Your task to perform on an android device: snooze an email in the gmail app Image 0: 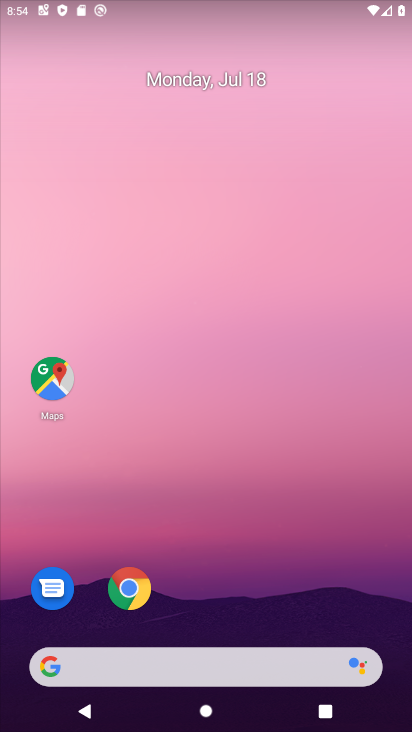
Step 0: drag from (262, 580) to (261, 151)
Your task to perform on an android device: snooze an email in the gmail app Image 1: 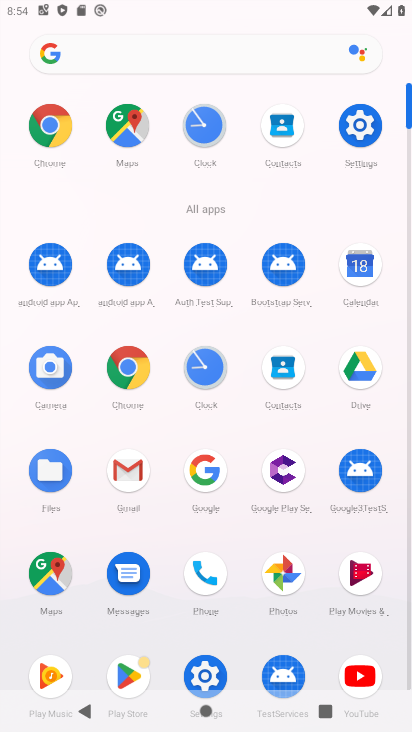
Step 1: click (123, 475)
Your task to perform on an android device: snooze an email in the gmail app Image 2: 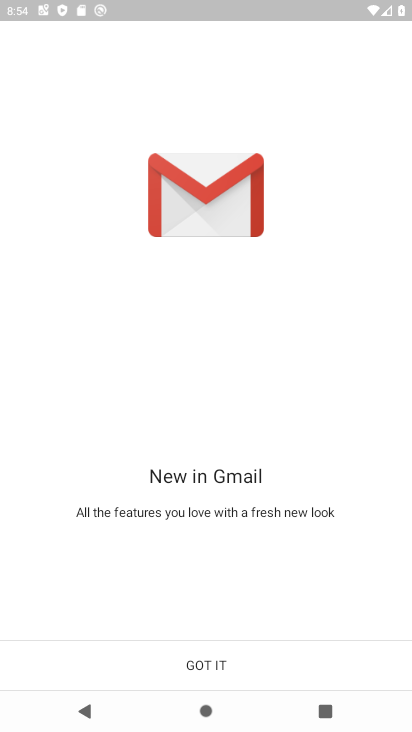
Step 2: click (307, 664)
Your task to perform on an android device: snooze an email in the gmail app Image 3: 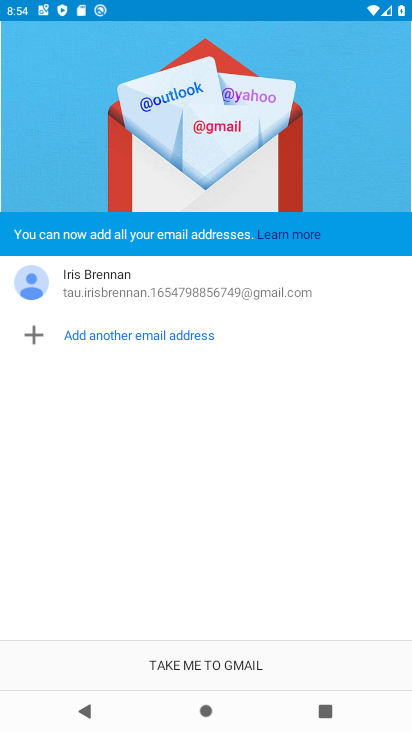
Step 3: click (305, 654)
Your task to perform on an android device: snooze an email in the gmail app Image 4: 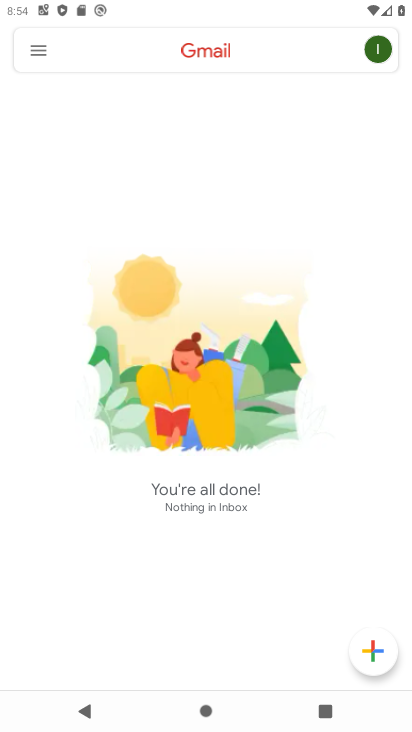
Step 4: click (39, 49)
Your task to perform on an android device: snooze an email in the gmail app Image 5: 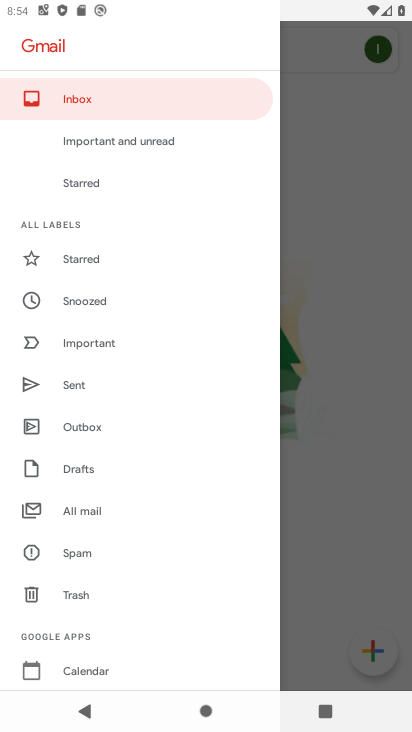
Step 5: click (90, 525)
Your task to perform on an android device: snooze an email in the gmail app Image 6: 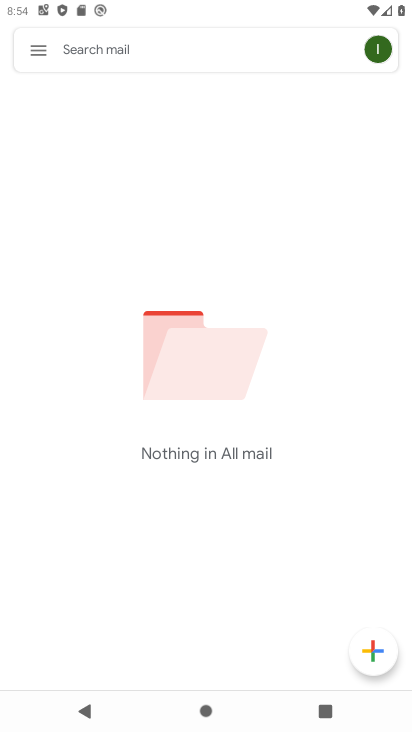
Step 6: task complete